Your task to perform on an android device: Go to internet settings Image 0: 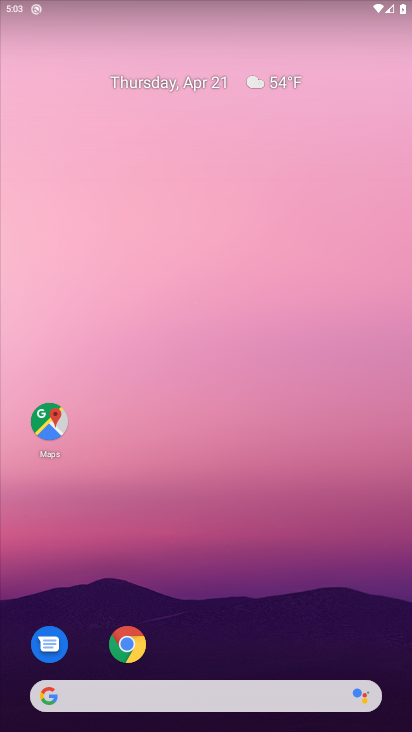
Step 0: drag from (186, 680) to (235, 231)
Your task to perform on an android device: Go to internet settings Image 1: 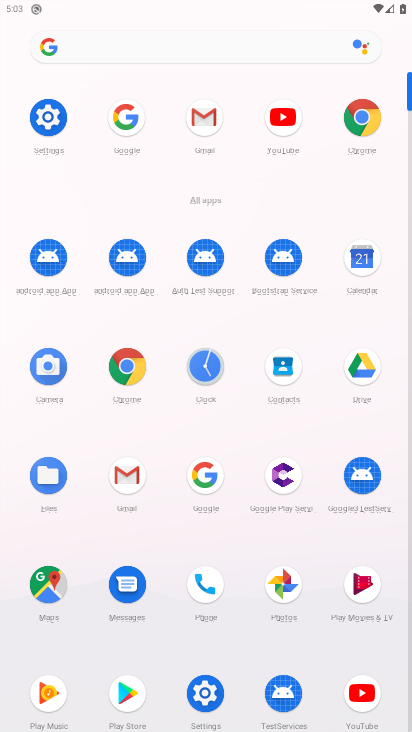
Step 1: click (44, 121)
Your task to perform on an android device: Go to internet settings Image 2: 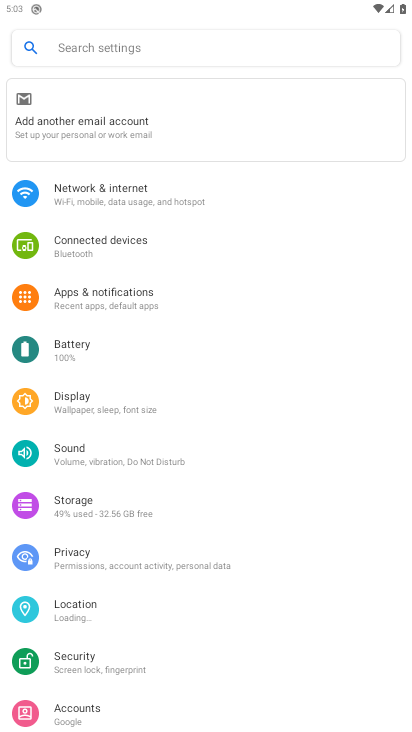
Step 2: click (95, 195)
Your task to perform on an android device: Go to internet settings Image 3: 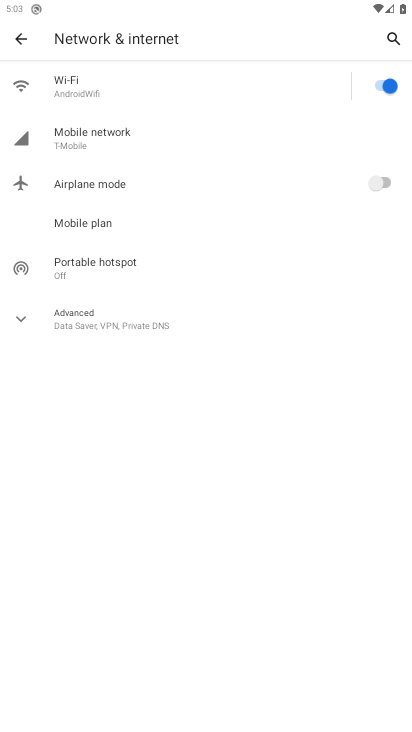
Step 3: click (89, 311)
Your task to perform on an android device: Go to internet settings Image 4: 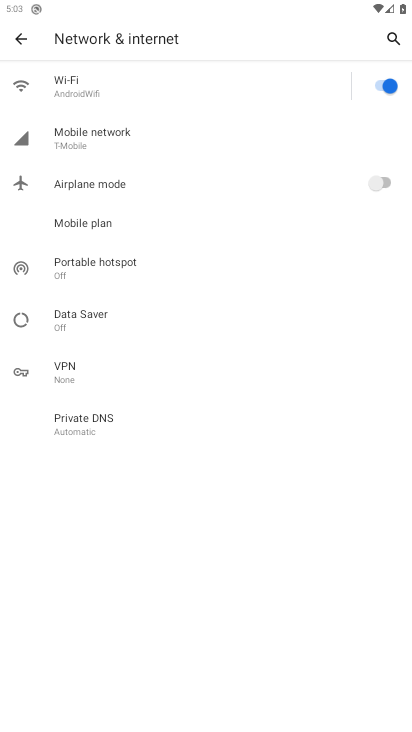
Step 4: click (97, 146)
Your task to perform on an android device: Go to internet settings Image 5: 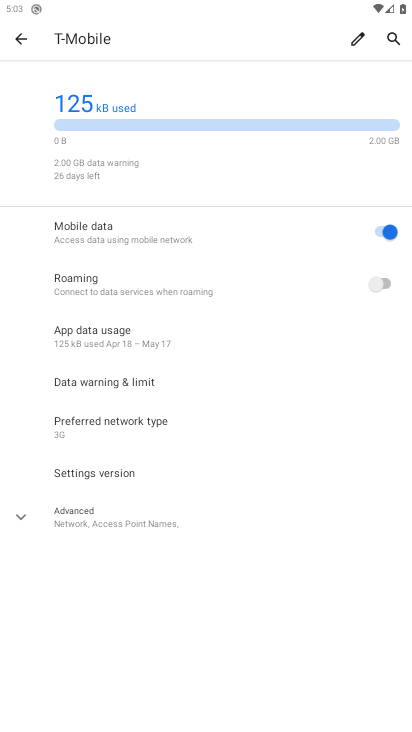
Step 5: click (74, 519)
Your task to perform on an android device: Go to internet settings Image 6: 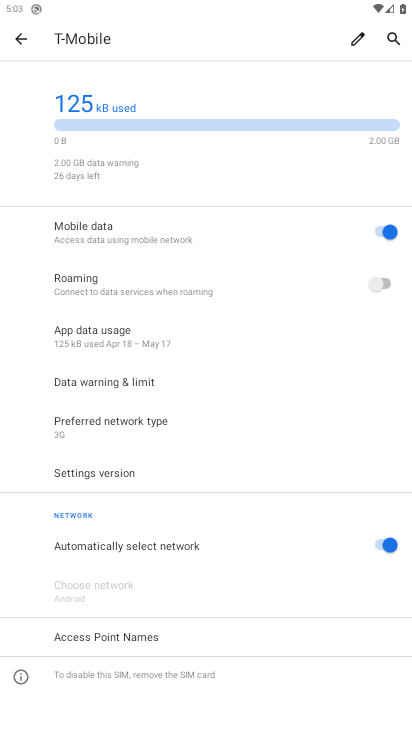
Step 6: task complete